Your task to perform on an android device: turn off location history Image 0: 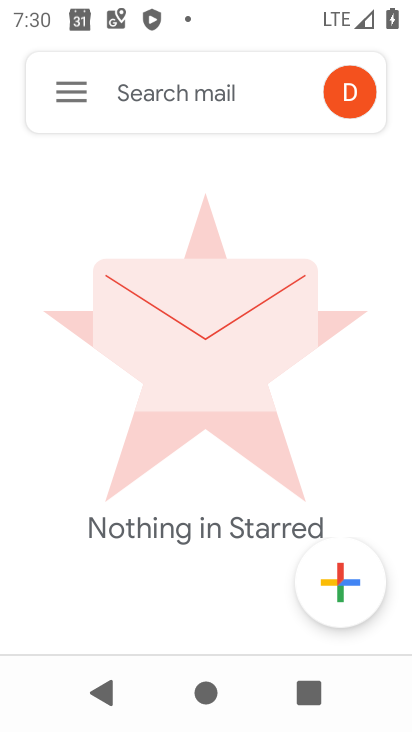
Step 0: press home button
Your task to perform on an android device: turn off location history Image 1: 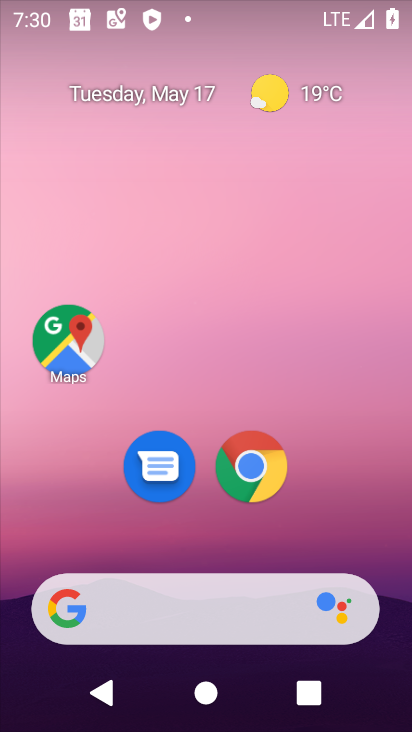
Step 1: click (80, 329)
Your task to perform on an android device: turn off location history Image 2: 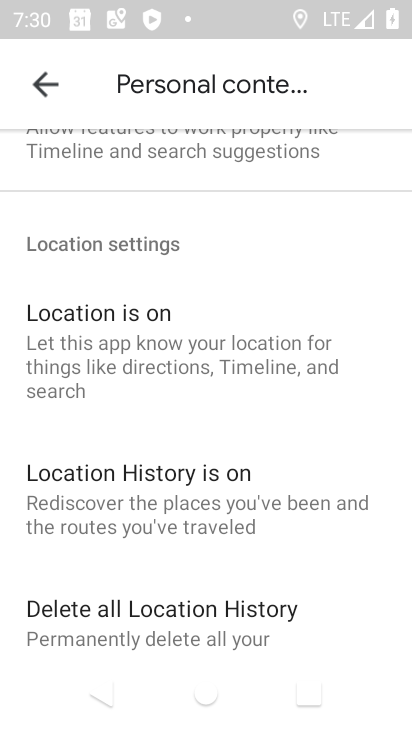
Step 2: click (156, 483)
Your task to perform on an android device: turn off location history Image 3: 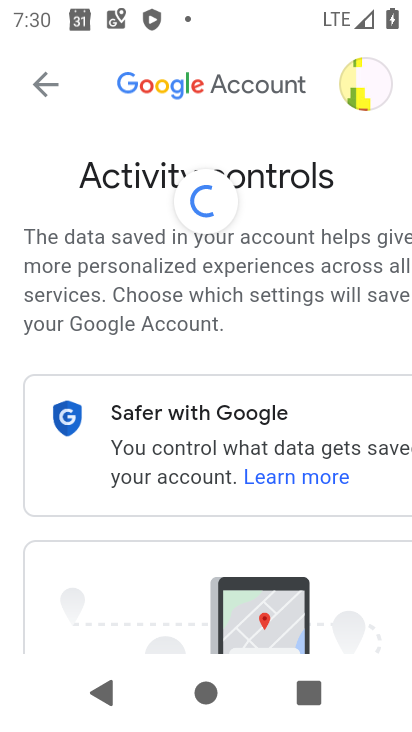
Step 3: drag from (168, 600) to (351, 0)
Your task to perform on an android device: turn off location history Image 4: 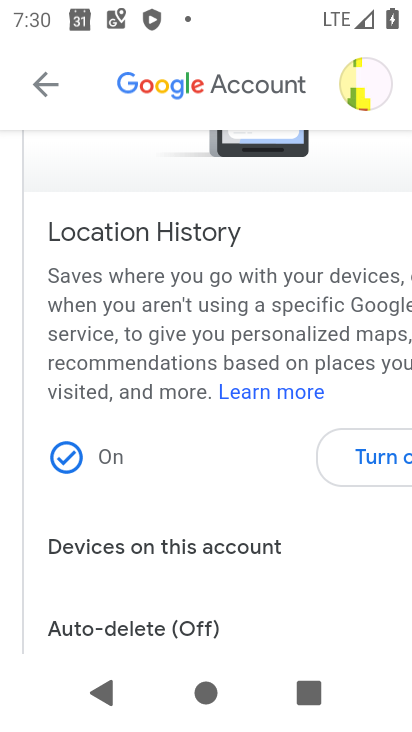
Step 4: click (379, 451)
Your task to perform on an android device: turn off location history Image 5: 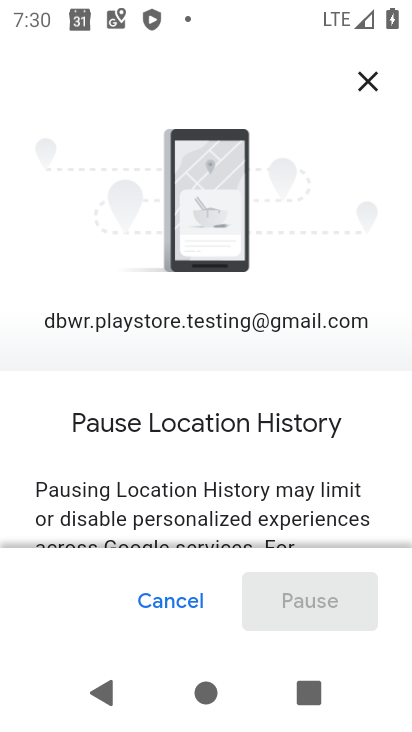
Step 5: drag from (238, 467) to (302, 115)
Your task to perform on an android device: turn off location history Image 6: 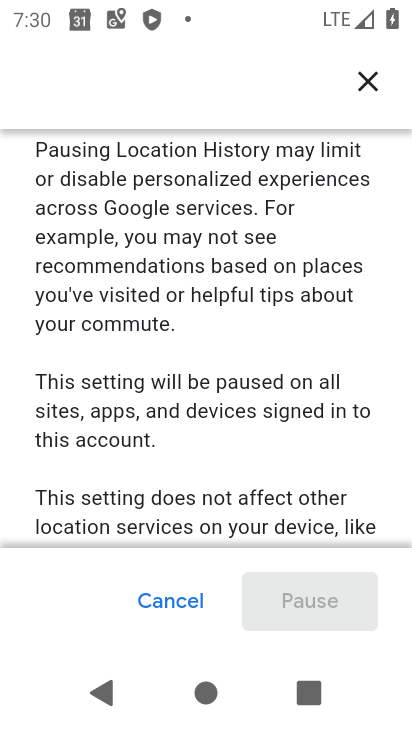
Step 6: drag from (217, 488) to (236, 59)
Your task to perform on an android device: turn off location history Image 7: 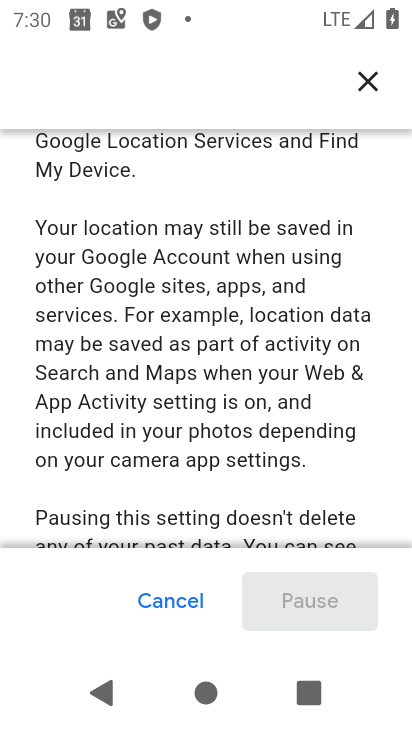
Step 7: drag from (256, 479) to (312, 74)
Your task to perform on an android device: turn off location history Image 8: 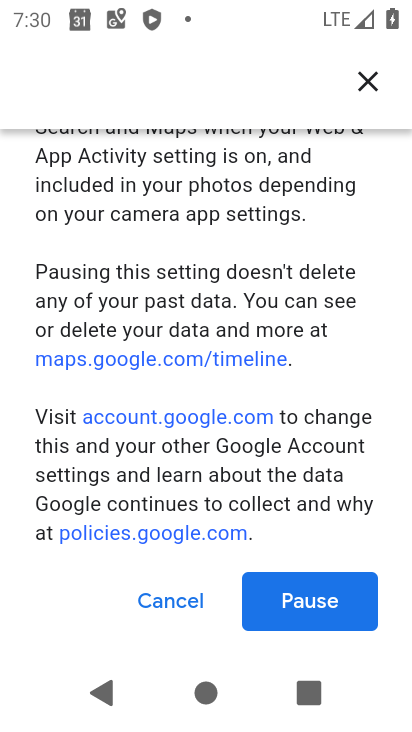
Step 8: click (310, 599)
Your task to perform on an android device: turn off location history Image 9: 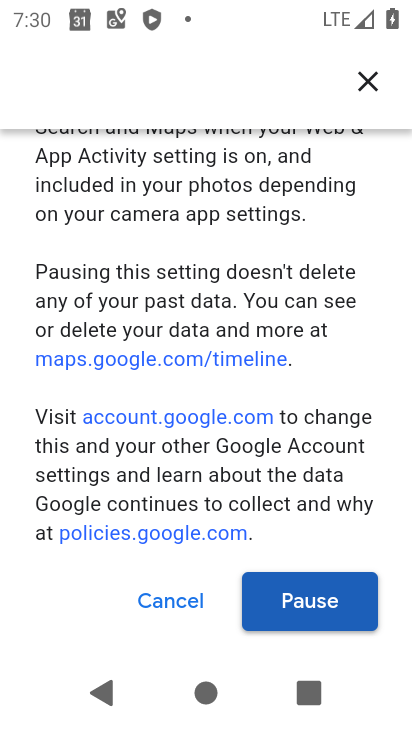
Step 9: click (310, 600)
Your task to perform on an android device: turn off location history Image 10: 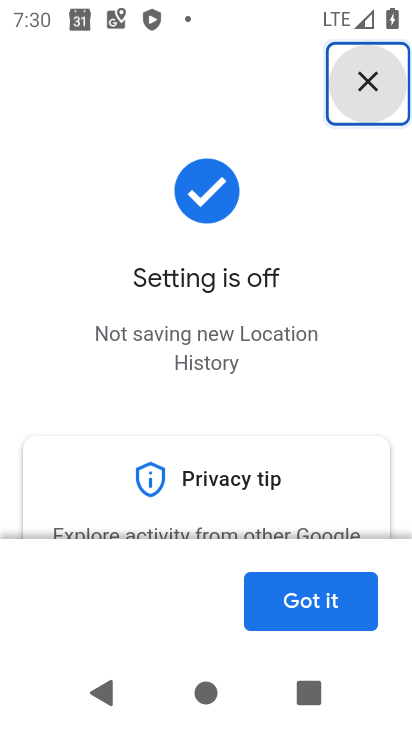
Step 10: click (310, 606)
Your task to perform on an android device: turn off location history Image 11: 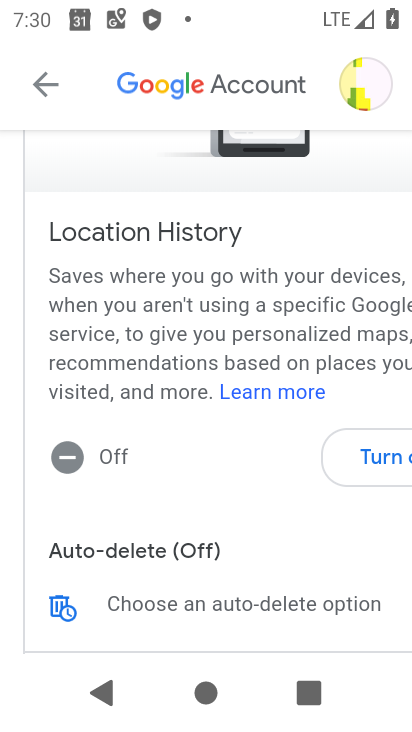
Step 11: task complete